Your task to perform on an android device: Open Google Chrome and open the bookmarks view Image 0: 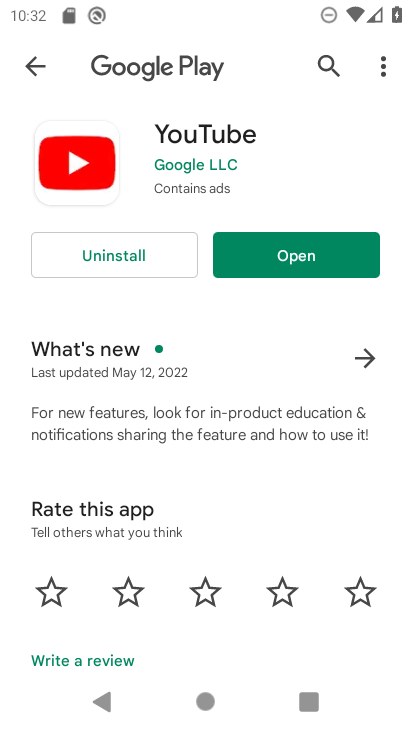
Step 0: press home button
Your task to perform on an android device: Open Google Chrome and open the bookmarks view Image 1: 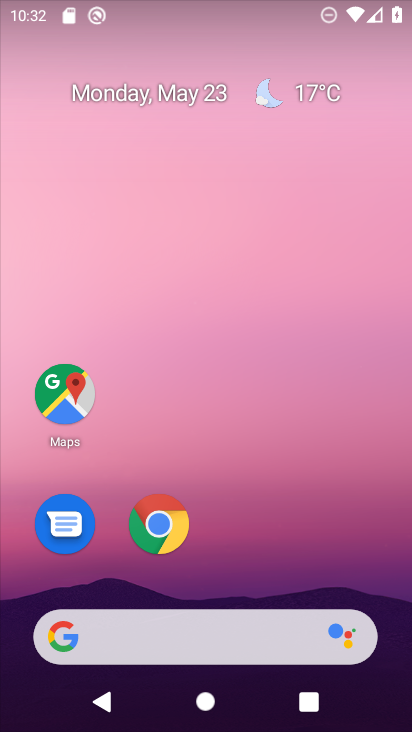
Step 1: click (142, 518)
Your task to perform on an android device: Open Google Chrome and open the bookmarks view Image 2: 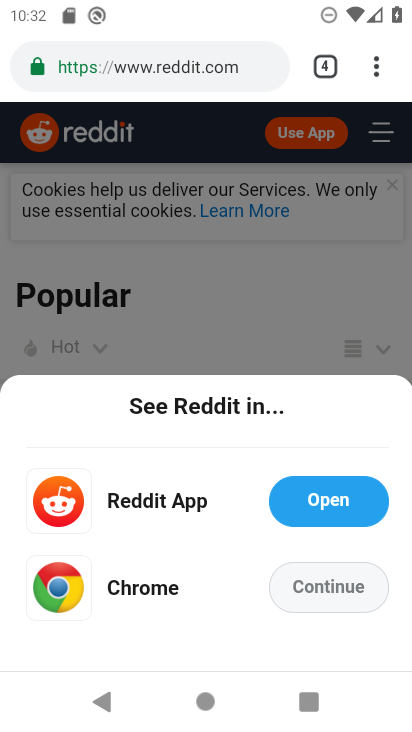
Step 2: click (376, 66)
Your task to perform on an android device: Open Google Chrome and open the bookmarks view Image 3: 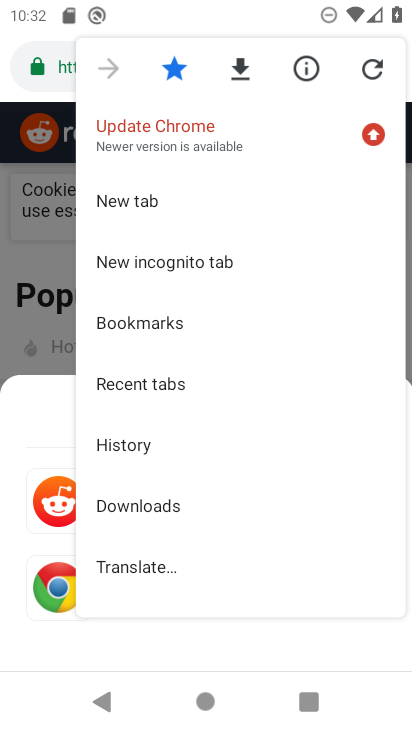
Step 3: click (140, 316)
Your task to perform on an android device: Open Google Chrome and open the bookmarks view Image 4: 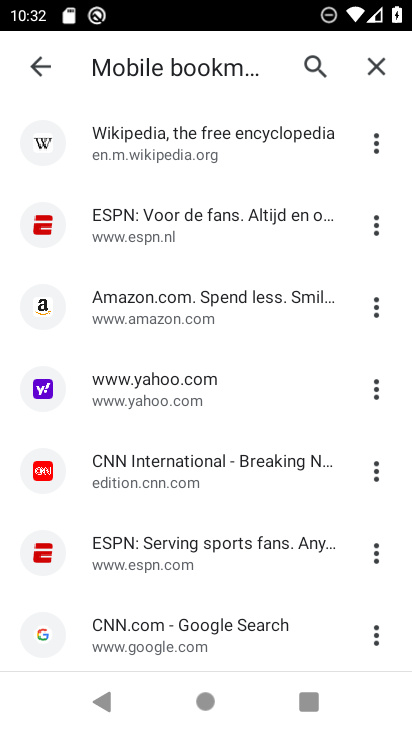
Step 4: task complete